Your task to perform on an android device: Open network settings Image 0: 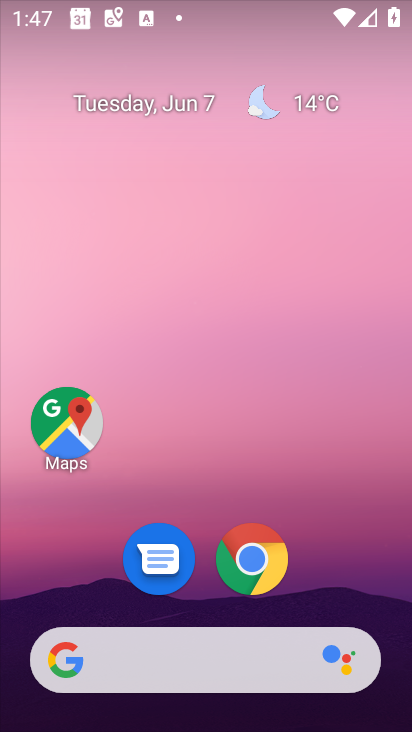
Step 0: drag from (63, 399) to (176, 158)
Your task to perform on an android device: Open network settings Image 1: 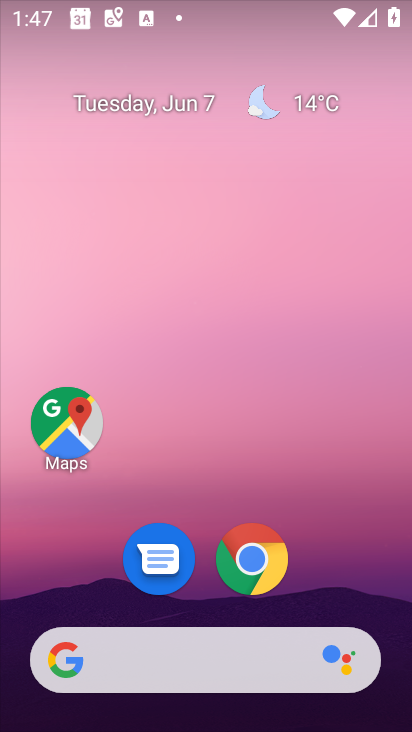
Step 1: drag from (52, 486) to (213, 38)
Your task to perform on an android device: Open network settings Image 2: 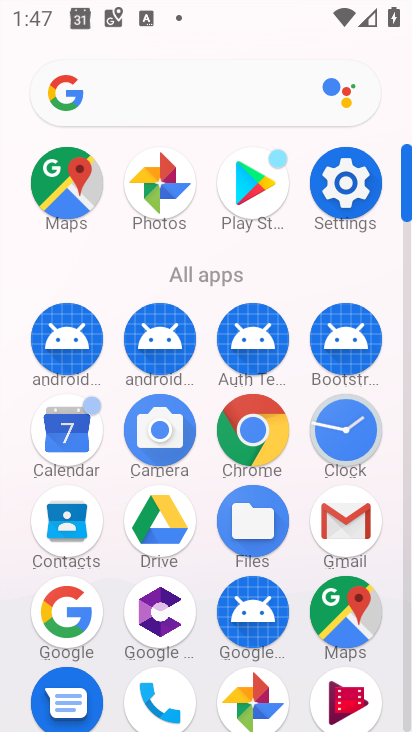
Step 2: click (340, 181)
Your task to perform on an android device: Open network settings Image 3: 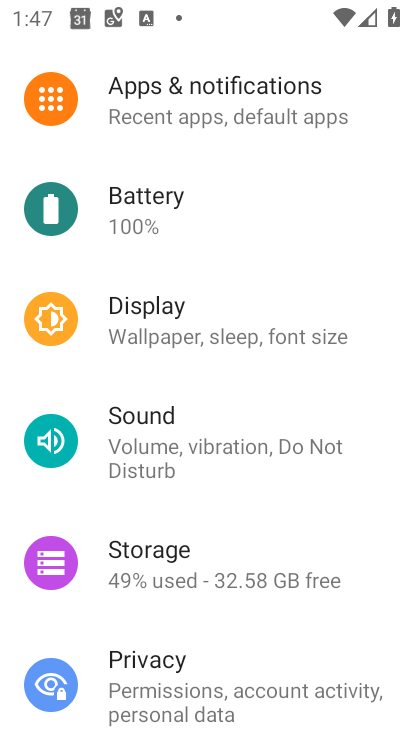
Step 3: drag from (147, 114) to (90, 469)
Your task to perform on an android device: Open network settings Image 4: 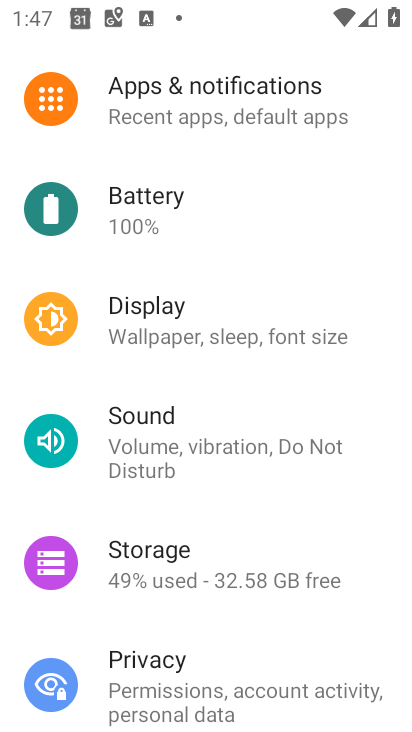
Step 4: drag from (197, 91) to (81, 559)
Your task to perform on an android device: Open network settings Image 5: 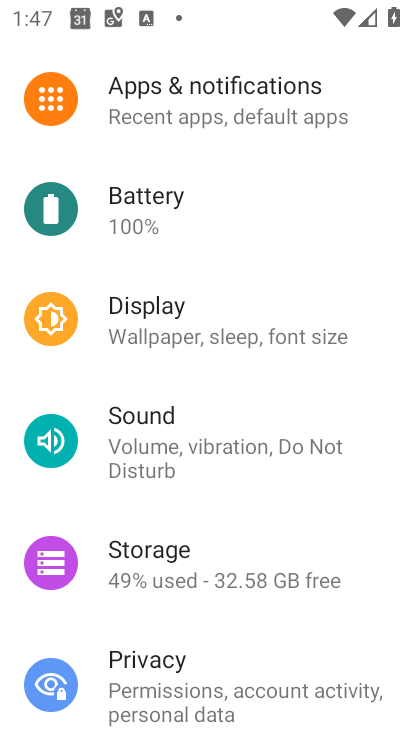
Step 5: drag from (135, 139) to (95, 630)
Your task to perform on an android device: Open network settings Image 6: 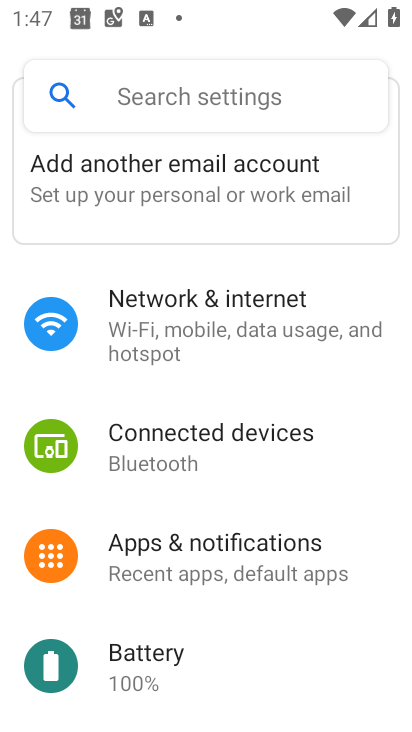
Step 6: click (192, 301)
Your task to perform on an android device: Open network settings Image 7: 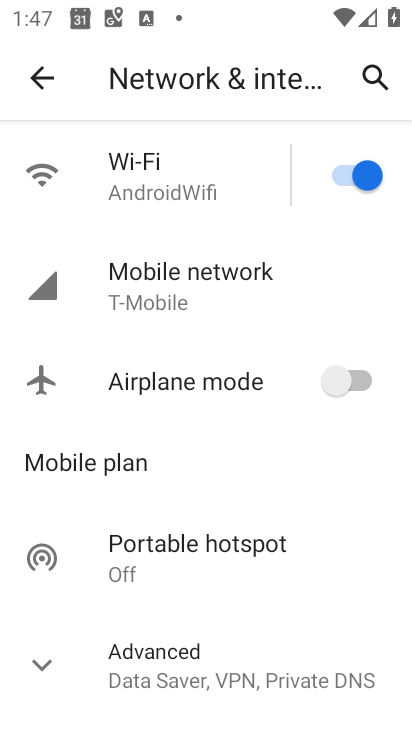
Step 7: click (167, 287)
Your task to perform on an android device: Open network settings Image 8: 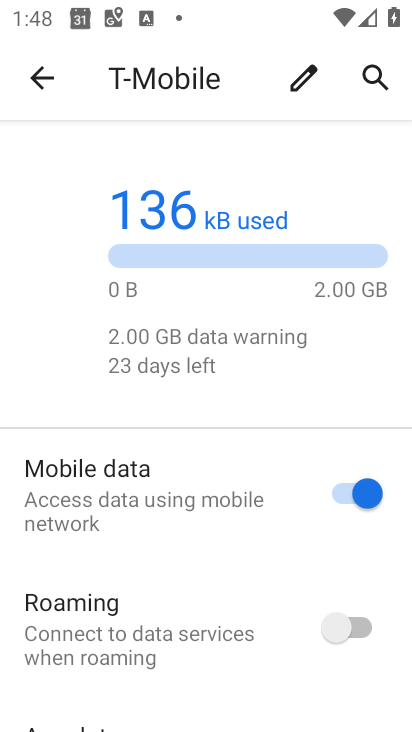
Step 8: task complete